Your task to perform on an android device: change the clock display to show seconds Image 0: 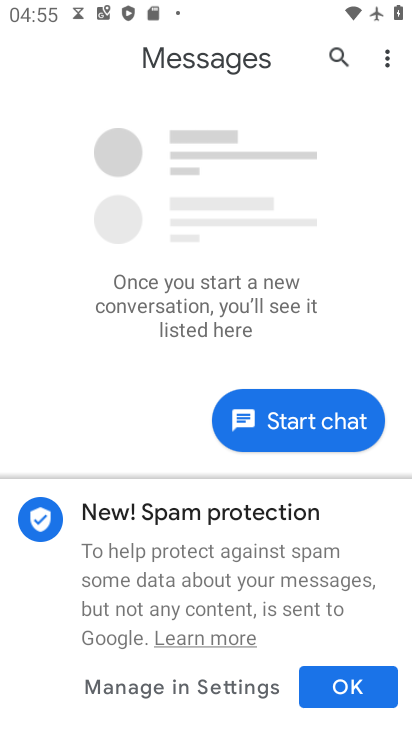
Step 0: press back button
Your task to perform on an android device: change the clock display to show seconds Image 1: 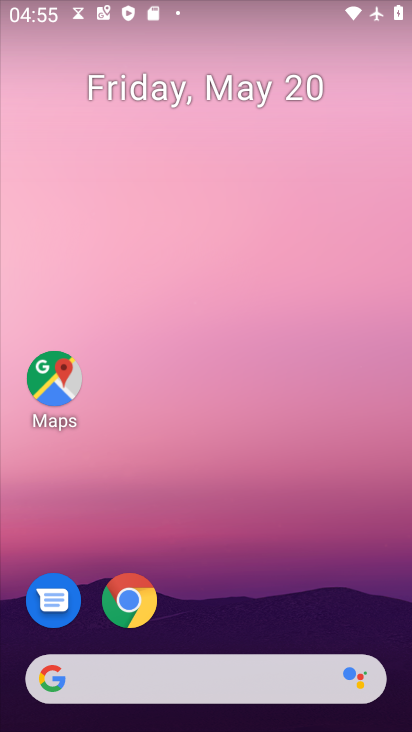
Step 1: drag from (275, 590) to (271, 4)
Your task to perform on an android device: change the clock display to show seconds Image 2: 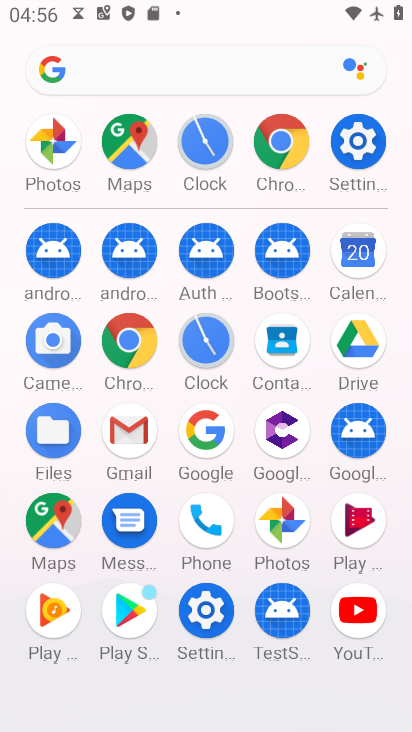
Step 2: drag from (0, 600) to (2, 219)
Your task to perform on an android device: change the clock display to show seconds Image 3: 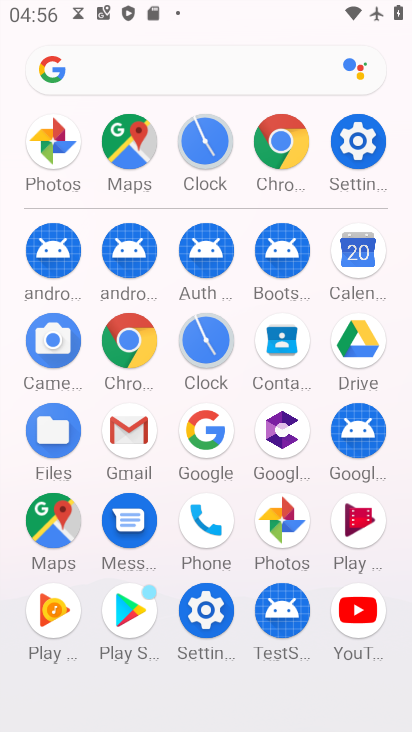
Step 3: click (200, 340)
Your task to perform on an android device: change the clock display to show seconds Image 4: 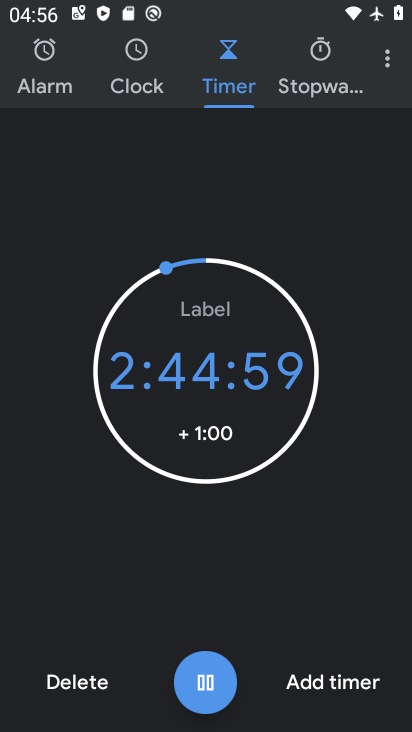
Step 4: drag from (385, 58) to (340, 121)
Your task to perform on an android device: change the clock display to show seconds Image 5: 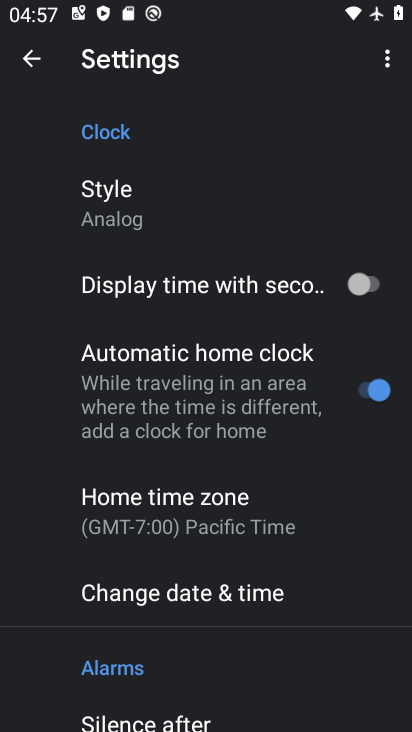
Step 5: click (368, 272)
Your task to perform on an android device: change the clock display to show seconds Image 6: 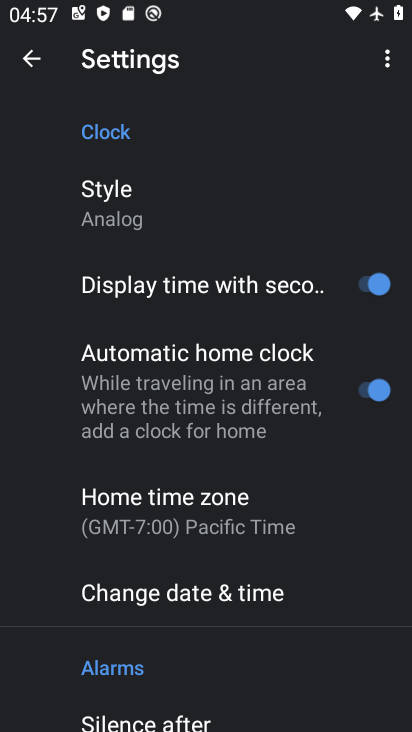
Step 6: task complete